Your task to perform on an android device: toggle priority inbox in the gmail app Image 0: 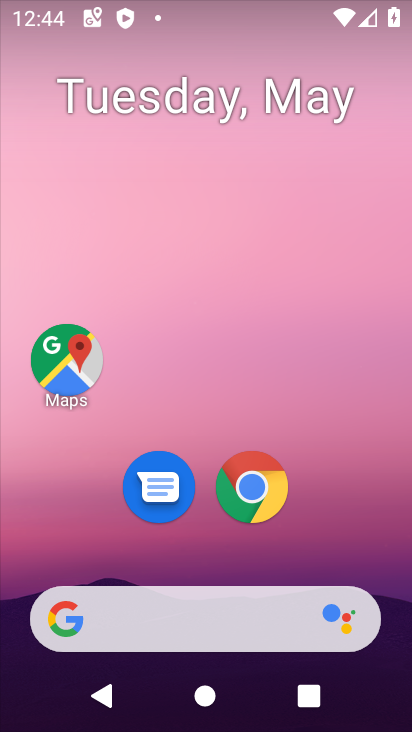
Step 0: drag from (286, 550) to (267, 40)
Your task to perform on an android device: toggle priority inbox in the gmail app Image 1: 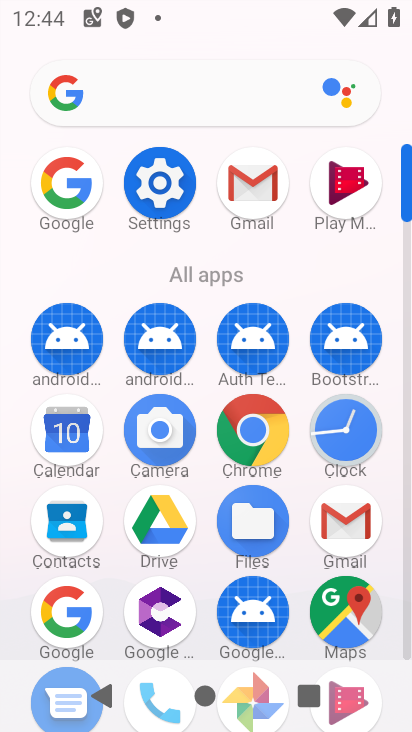
Step 1: click (244, 181)
Your task to perform on an android device: toggle priority inbox in the gmail app Image 2: 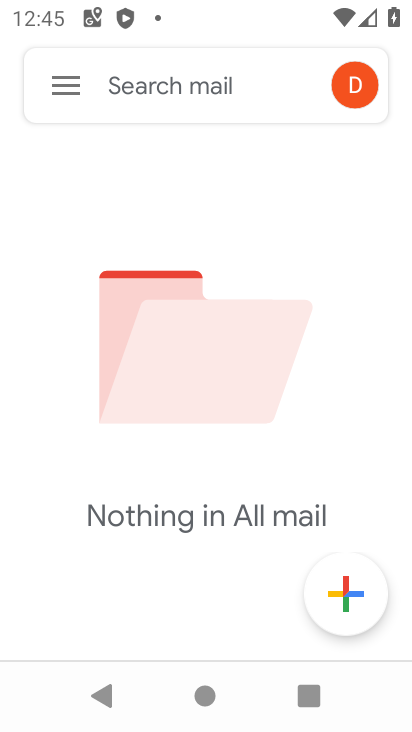
Step 2: click (58, 94)
Your task to perform on an android device: toggle priority inbox in the gmail app Image 3: 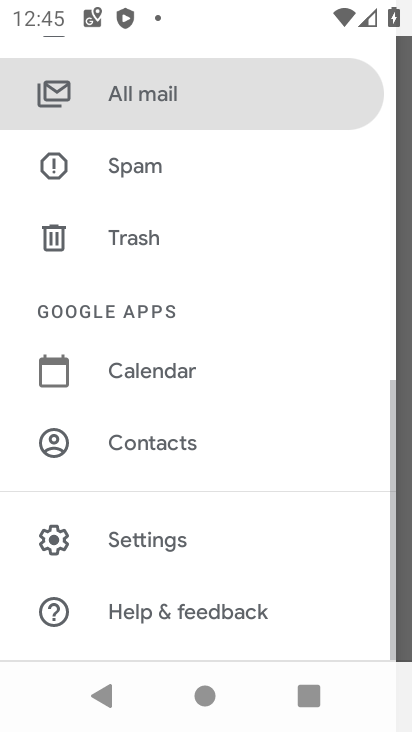
Step 3: click (151, 546)
Your task to perform on an android device: toggle priority inbox in the gmail app Image 4: 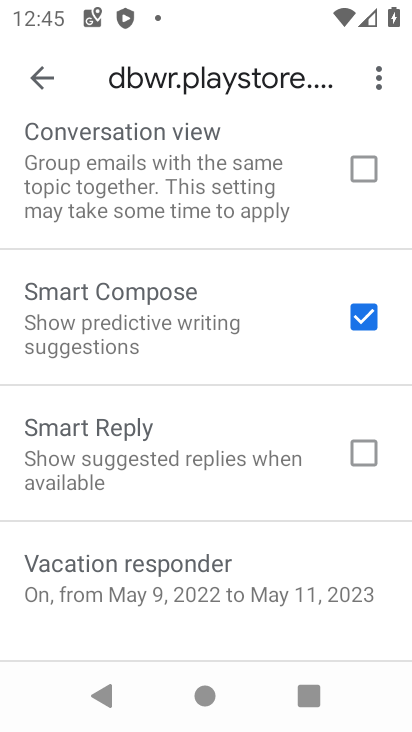
Step 4: drag from (226, 154) to (129, 605)
Your task to perform on an android device: toggle priority inbox in the gmail app Image 5: 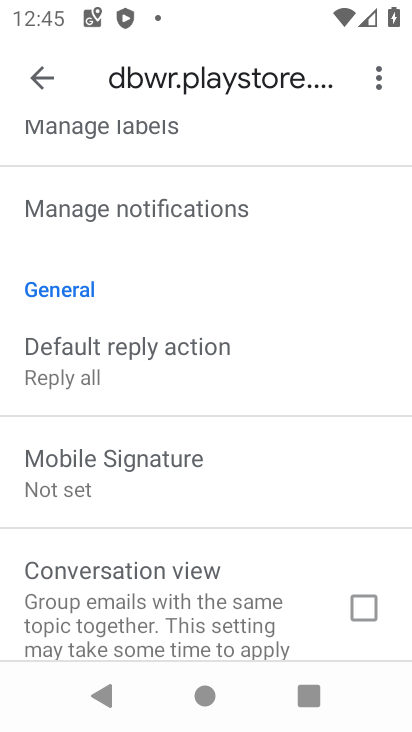
Step 5: drag from (133, 170) to (134, 408)
Your task to perform on an android device: toggle priority inbox in the gmail app Image 6: 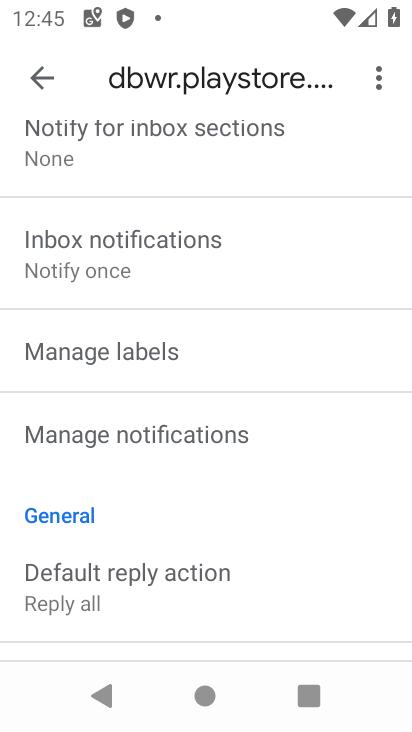
Step 6: drag from (132, 227) to (135, 455)
Your task to perform on an android device: toggle priority inbox in the gmail app Image 7: 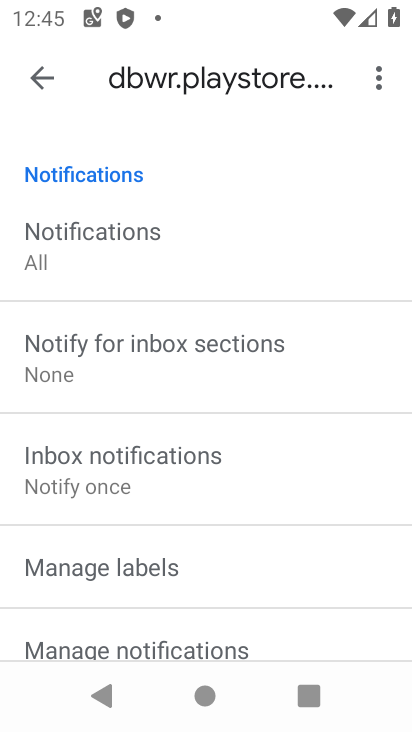
Step 7: drag from (160, 202) to (215, 545)
Your task to perform on an android device: toggle priority inbox in the gmail app Image 8: 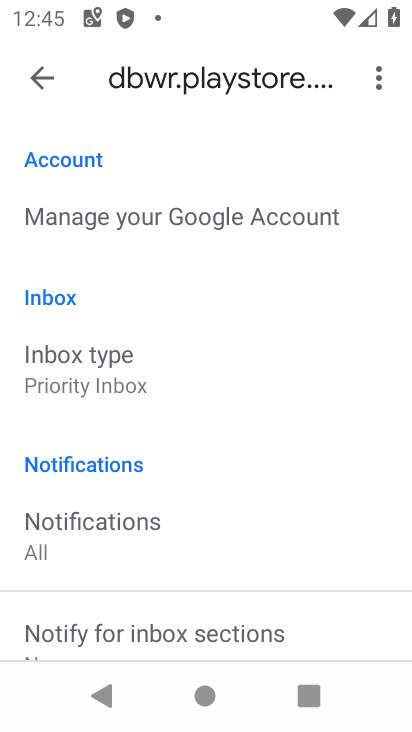
Step 8: click (106, 386)
Your task to perform on an android device: toggle priority inbox in the gmail app Image 9: 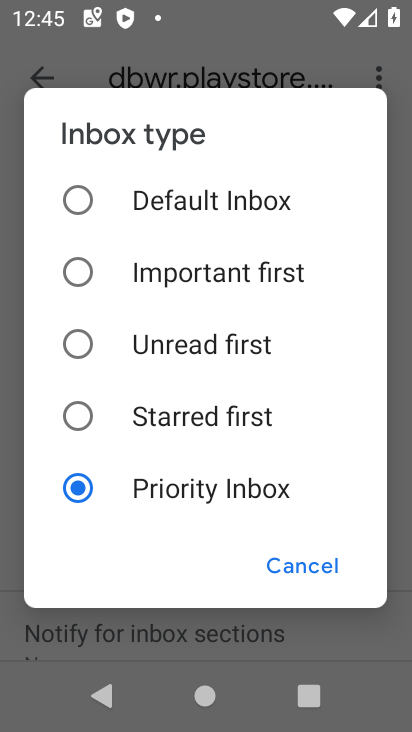
Step 9: click (82, 204)
Your task to perform on an android device: toggle priority inbox in the gmail app Image 10: 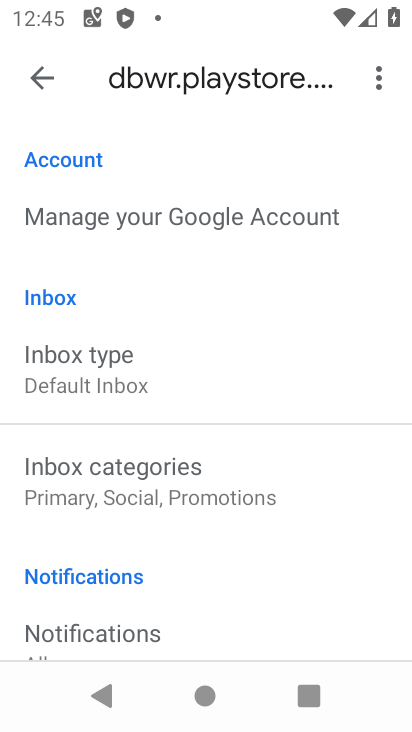
Step 10: task complete